Your task to perform on an android device: Add "rayovac triple a" to the cart on walmart.com, then select checkout. Image 0: 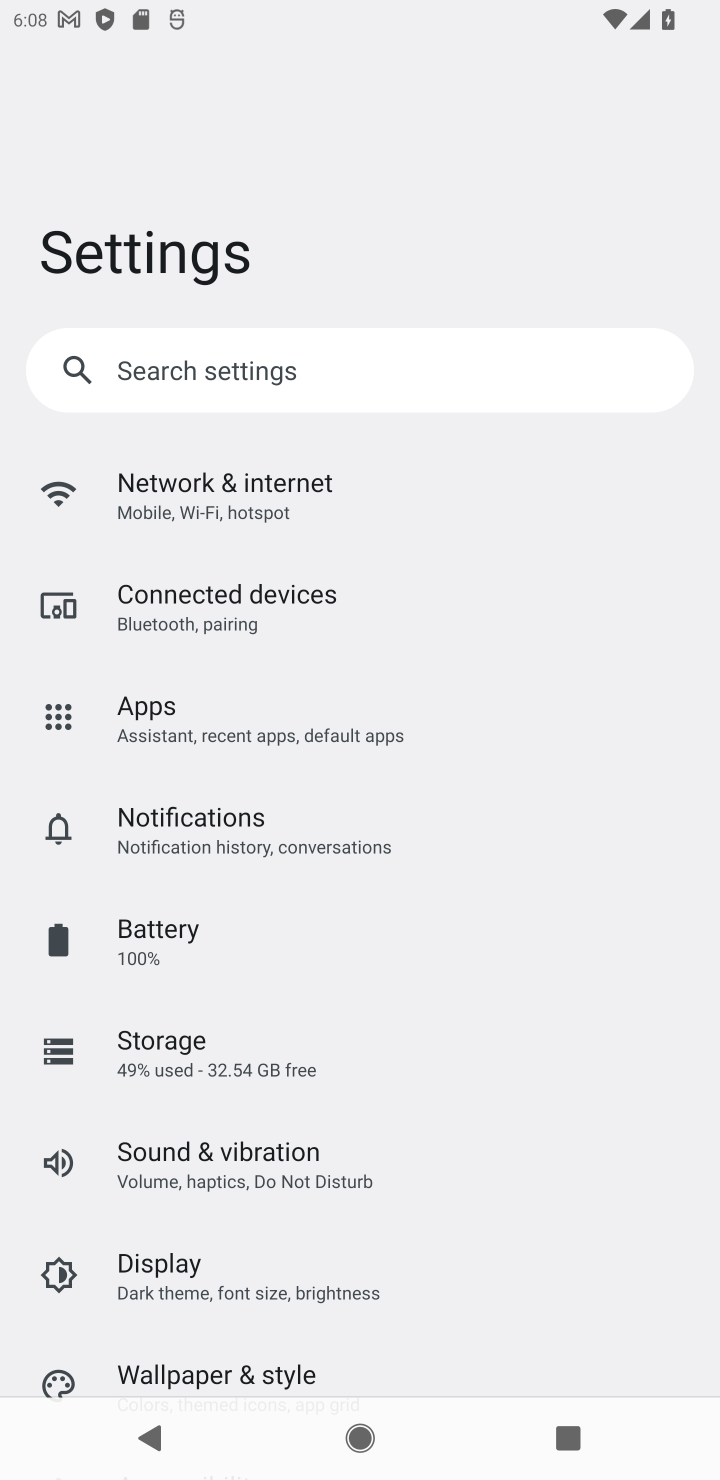
Step 0: press home button
Your task to perform on an android device: Add "rayovac triple a" to the cart on walmart.com, then select checkout. Image 1: 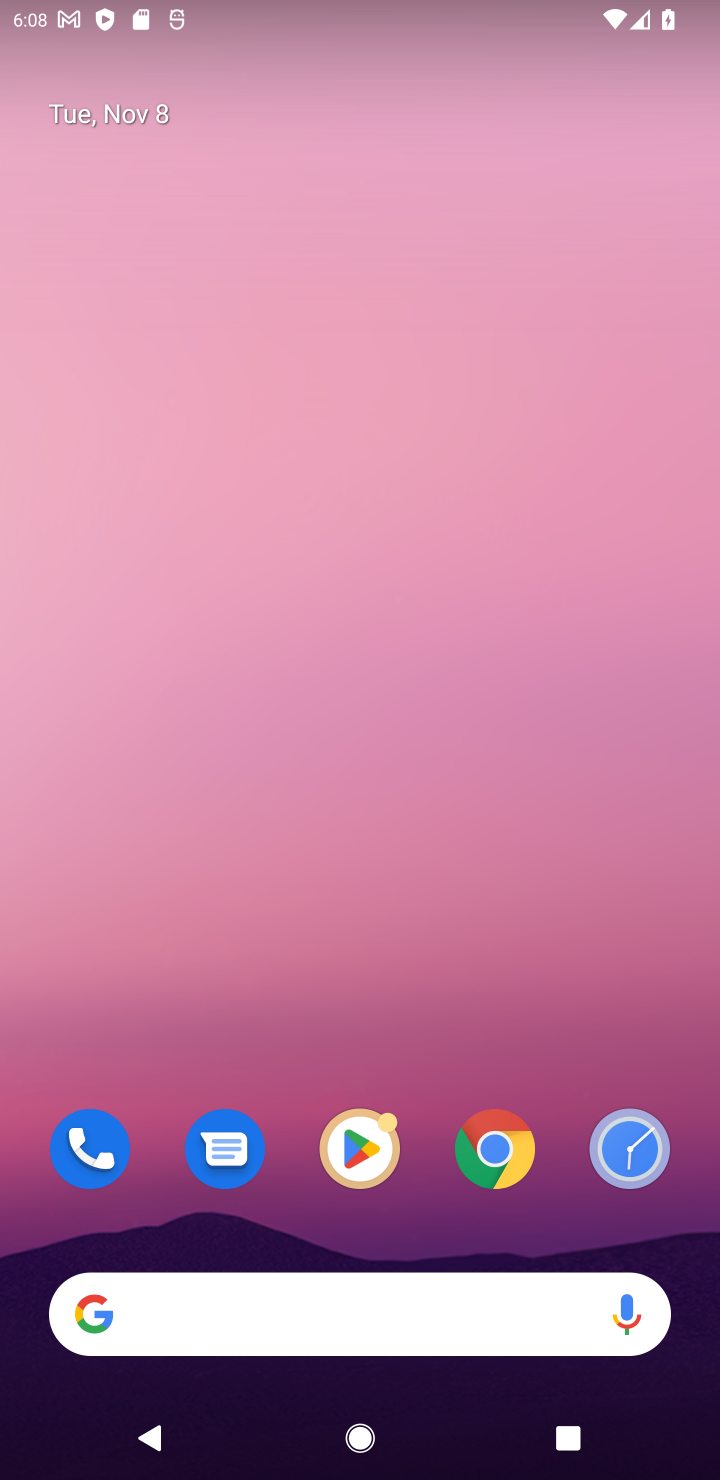
Step 1: click (505, 1155)
Your task to perform on an android device: Add "rayovac triple a" to the cart on walmart.com, then select checkout. Image 2: 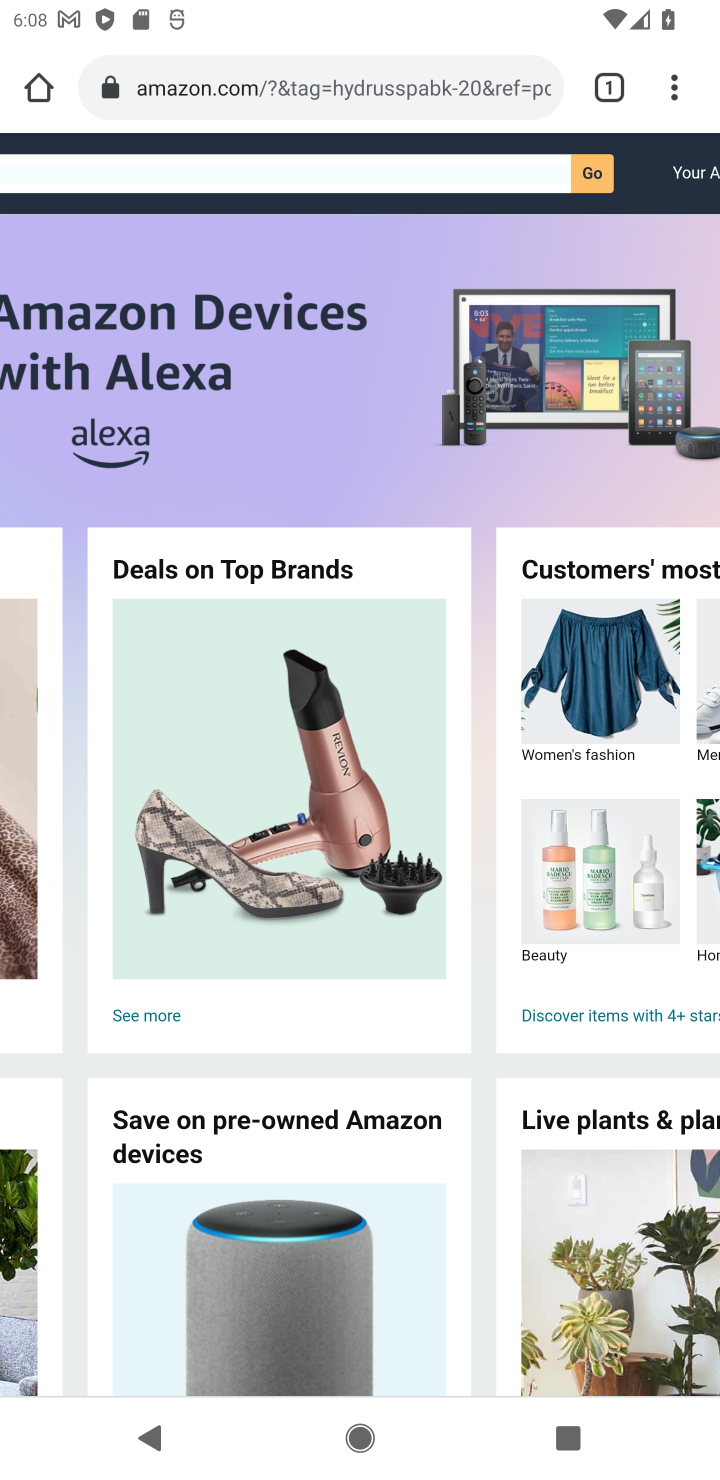
Step 2: click (538, 79)
Your task to perform on an android device: Add "rayovac triple a" to the cart on walmart.com, then select checkout. Image 3: 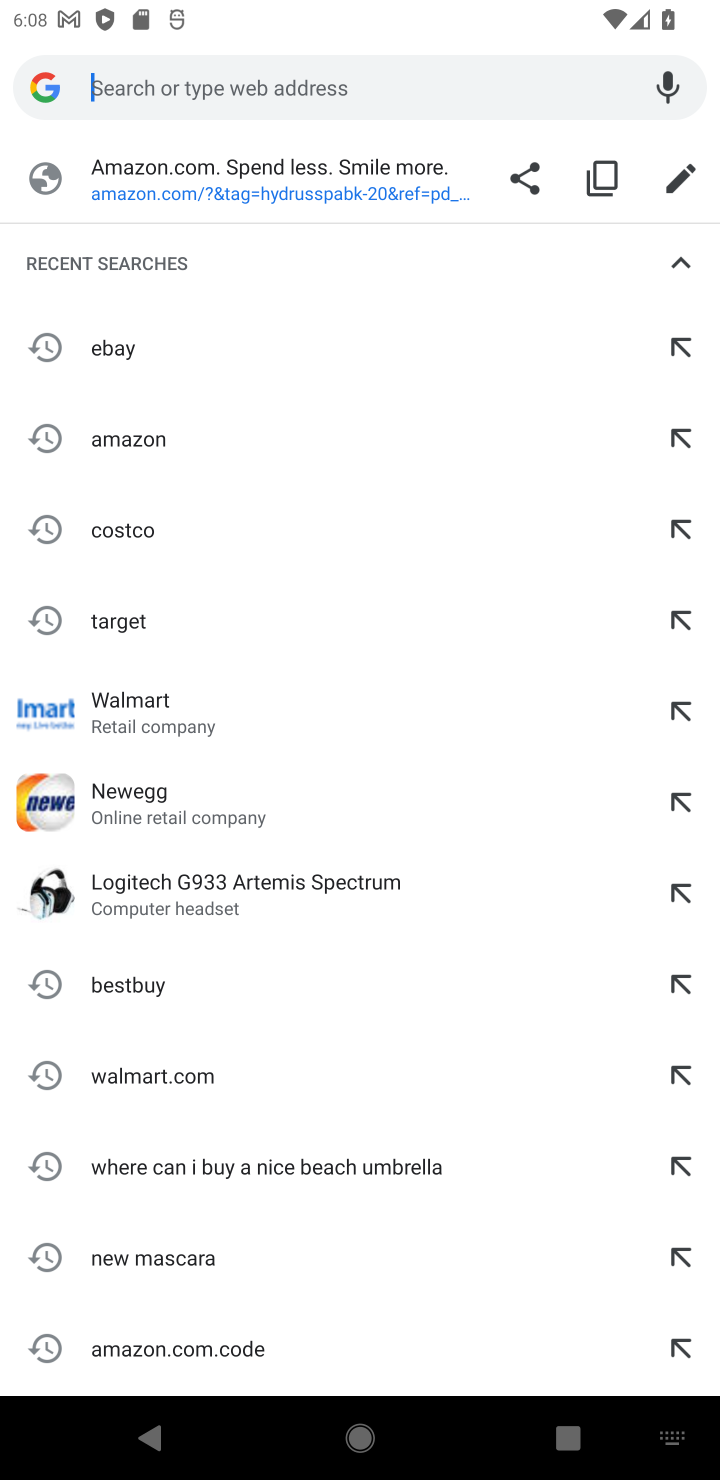
Step 3: type "walmart.com"
Your task to perform on an android device: Add "rayovac triple a" to the cart on walmart.com, then select checkout. Image 4: 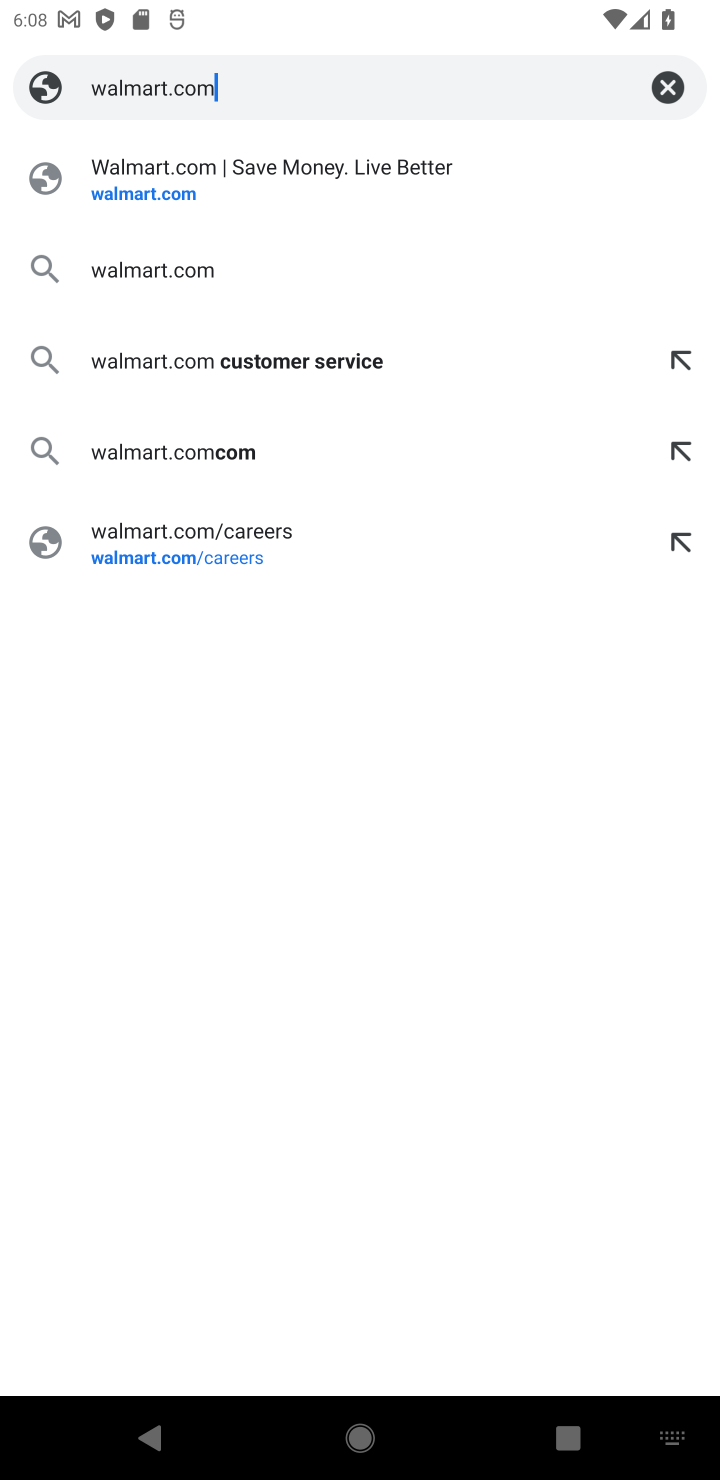
Step 4: click (198, 262)
Your task to perform on an android device: Add "rayovac triple a" to the cart on walmart.com, then select checkout. Image 5: 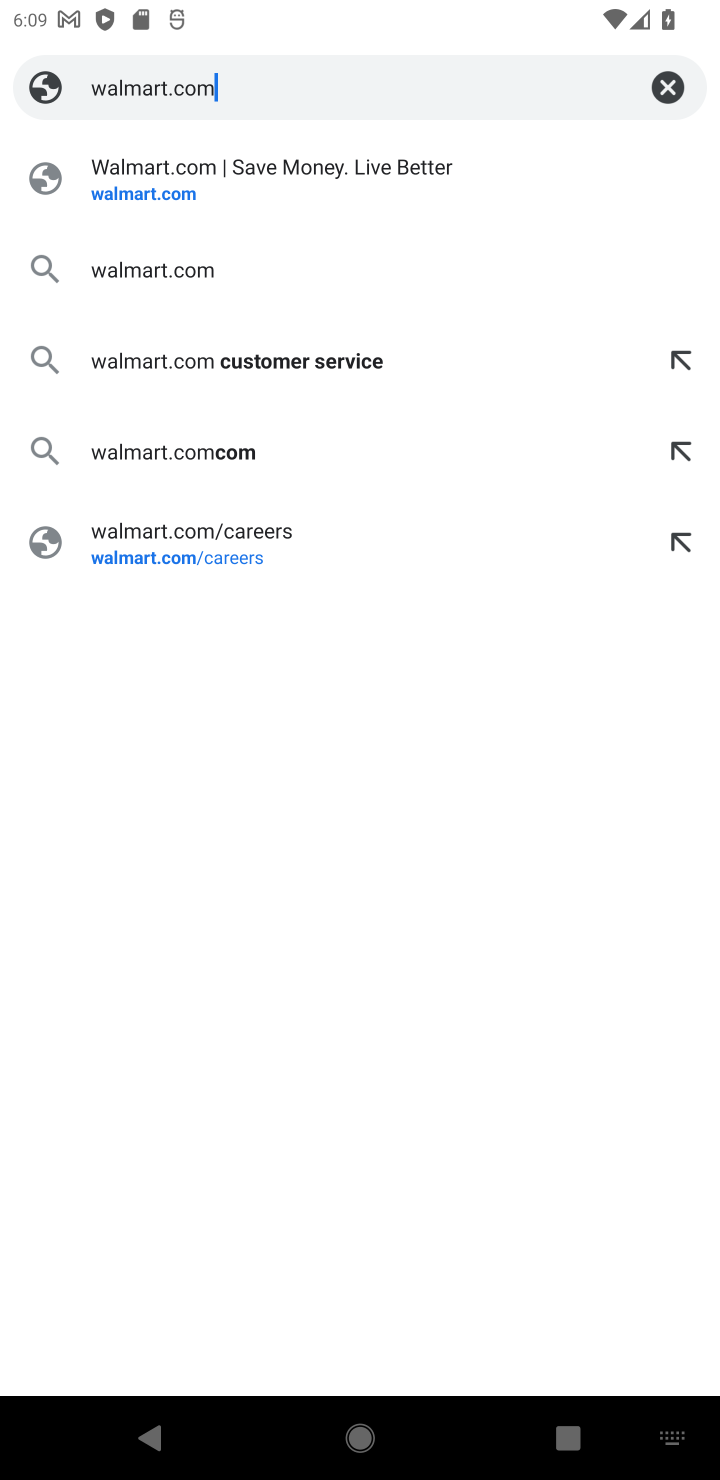
Step 5: click (160, 269)
Your task to perform on an android device: Add "rayovac triple a" to the cart on walmart.com, then select checkout. Image 6: 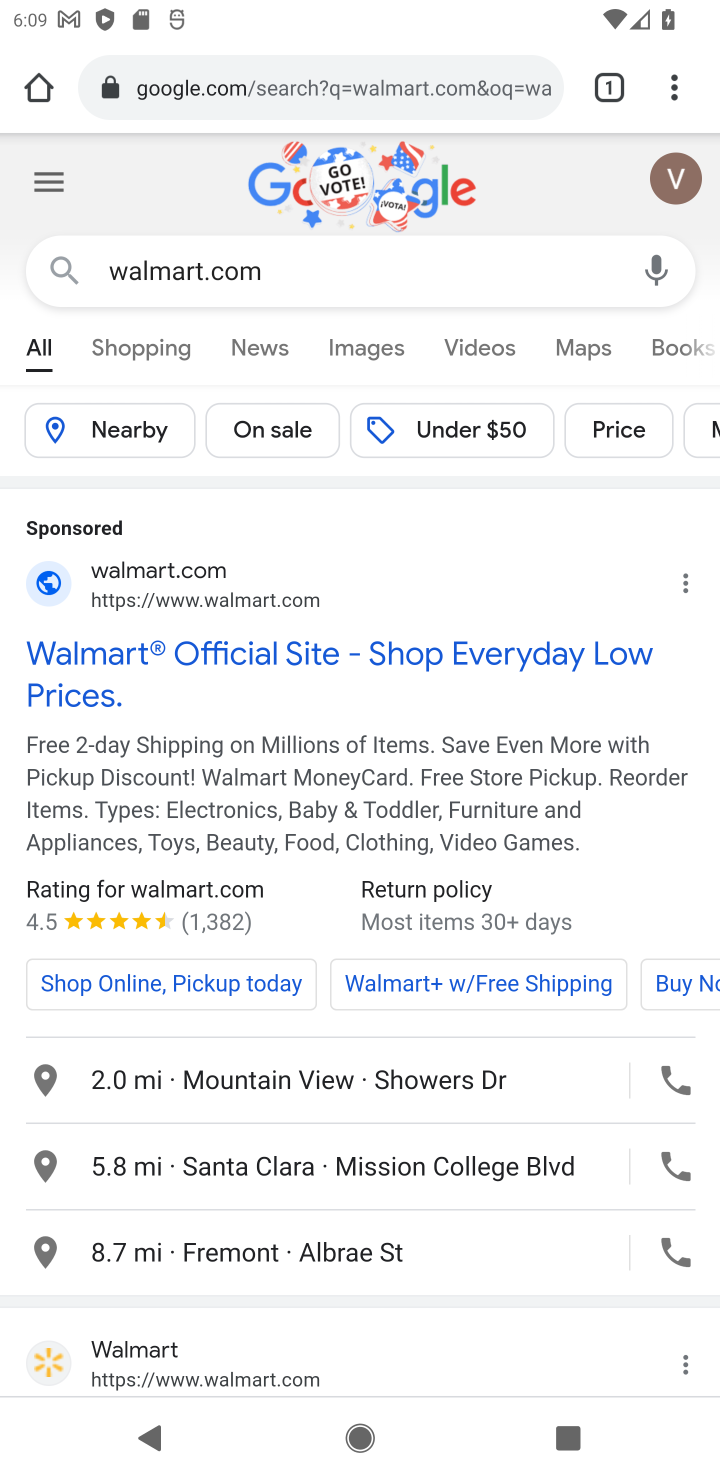
Step 6: click (231, 600)
Your task to perform on an android device: Add "rayovac triple a" to the cart on walmart.com, then select checkout. Image 7: 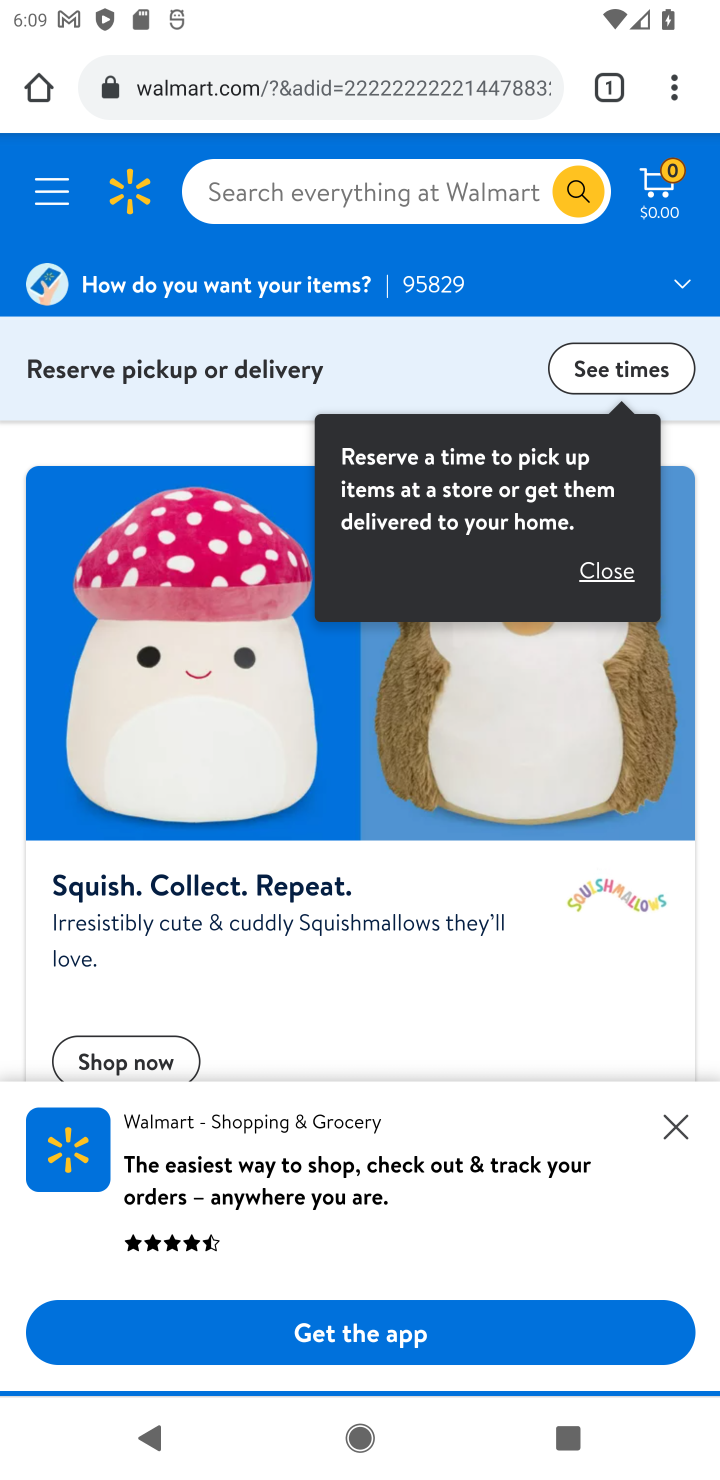
Step 7: click (341, 171)
Your task to perform on an android device: Add "rayovac triple a" to the cart on walmart.com, then select checkout. Image 8: 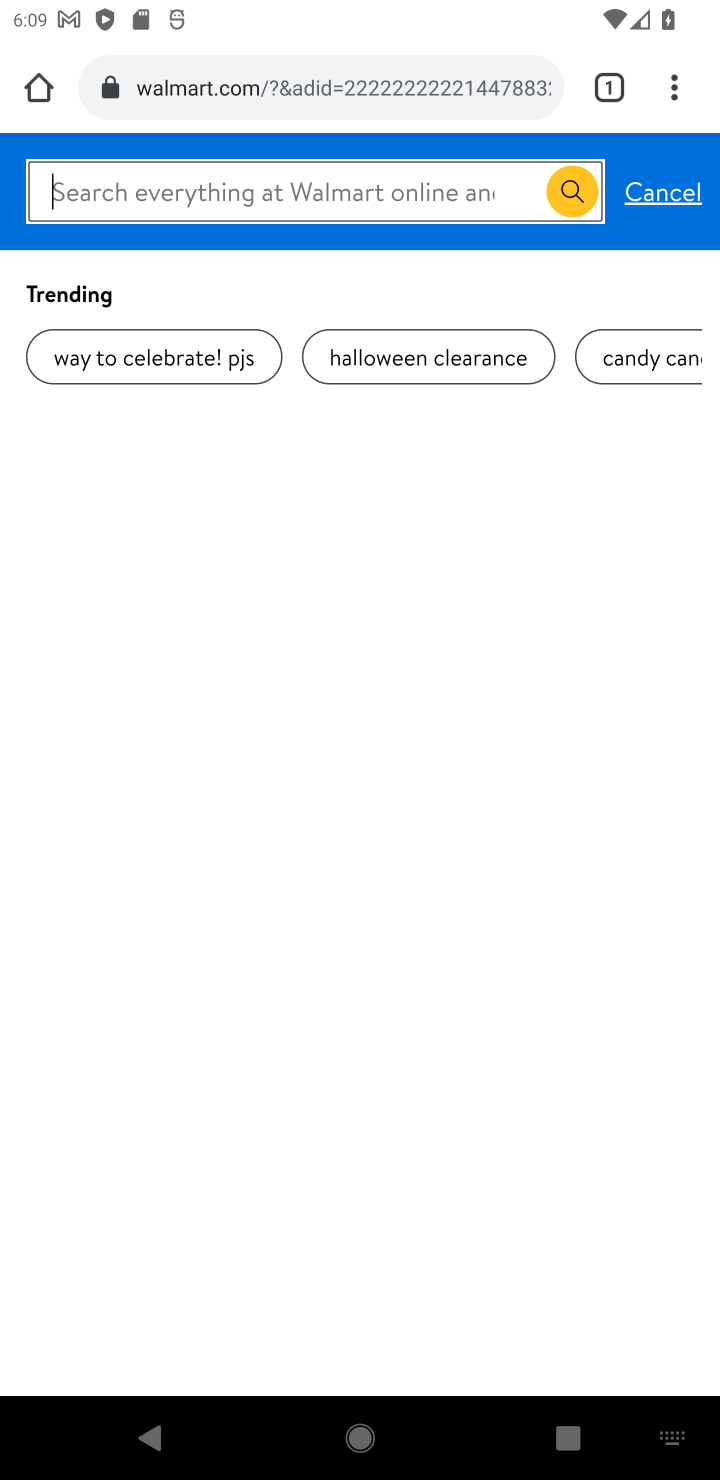
Step 8: type "rayovac triple a"
Your task to perform on an android device: Add "rayovac triple a" to the cart on walmart.com, then select checkout. Image 9: 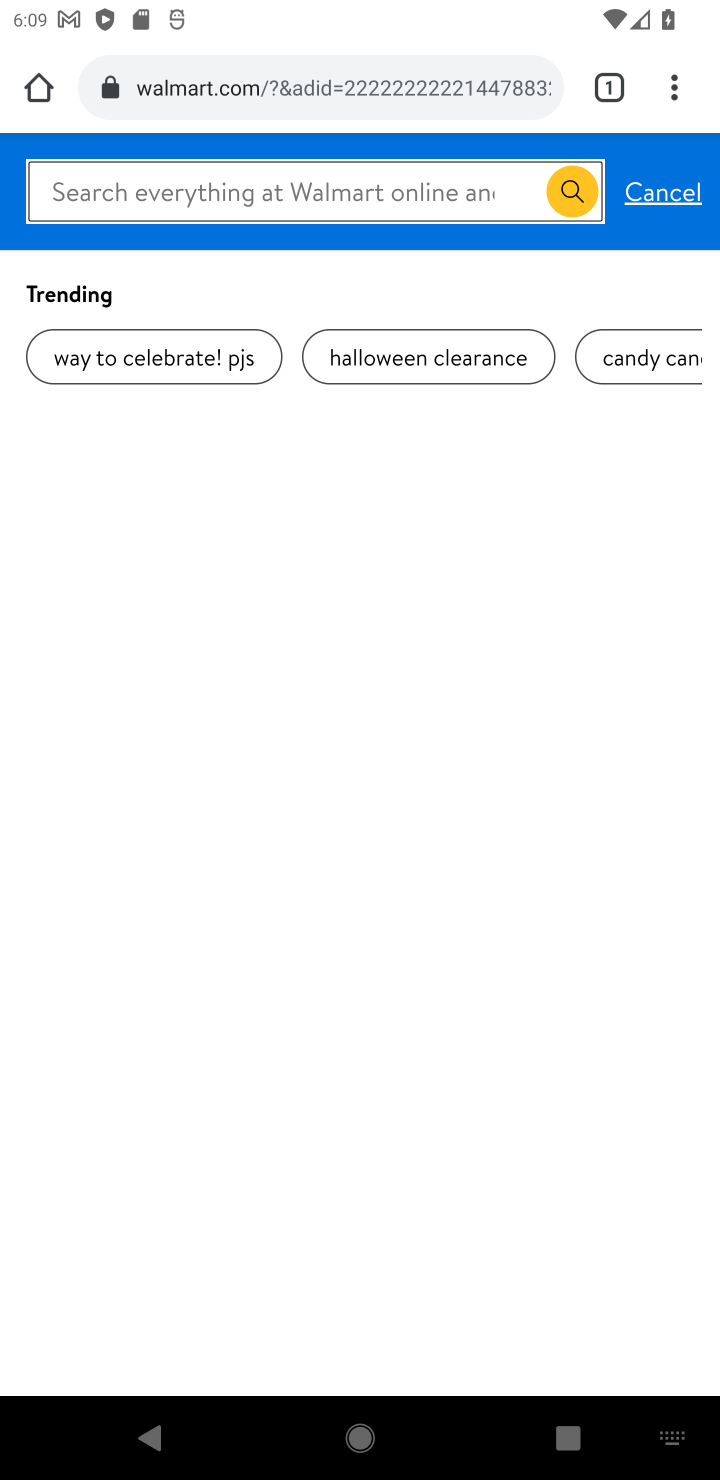
Step 9: press enter
Your task to perform on an android device: Add "rayovac triple a" to the cart on walmart.com, then select checkout. Image 10: 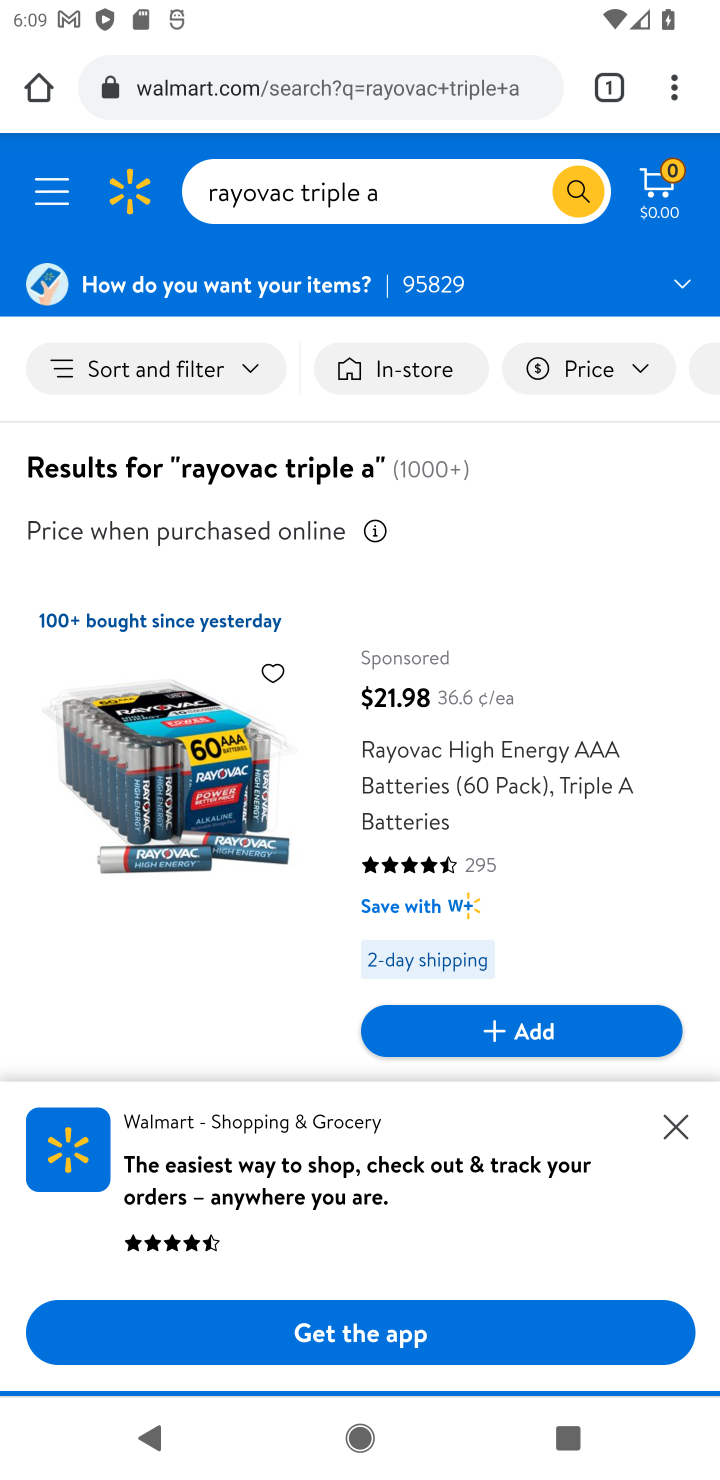
Step 10: click (116, 809)
Your task to perform on an android device: Add "rayovac triple a" to the cart on walmart.com, then select checkout. Image 11: 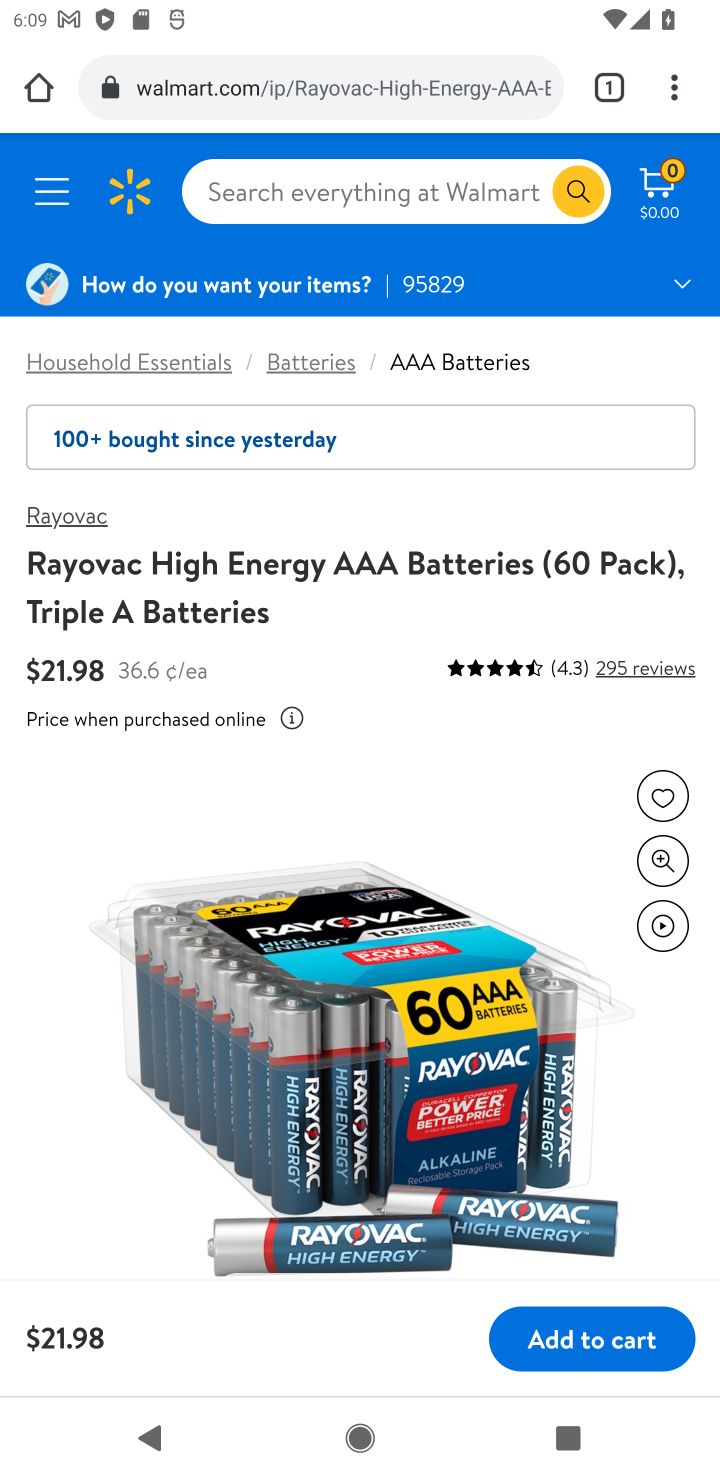
Step 11: click (582, 1355)
Your task to perform on an android device: Add "rayovac triple a" to the cart on walmart.com, then select checkout. Image 12: 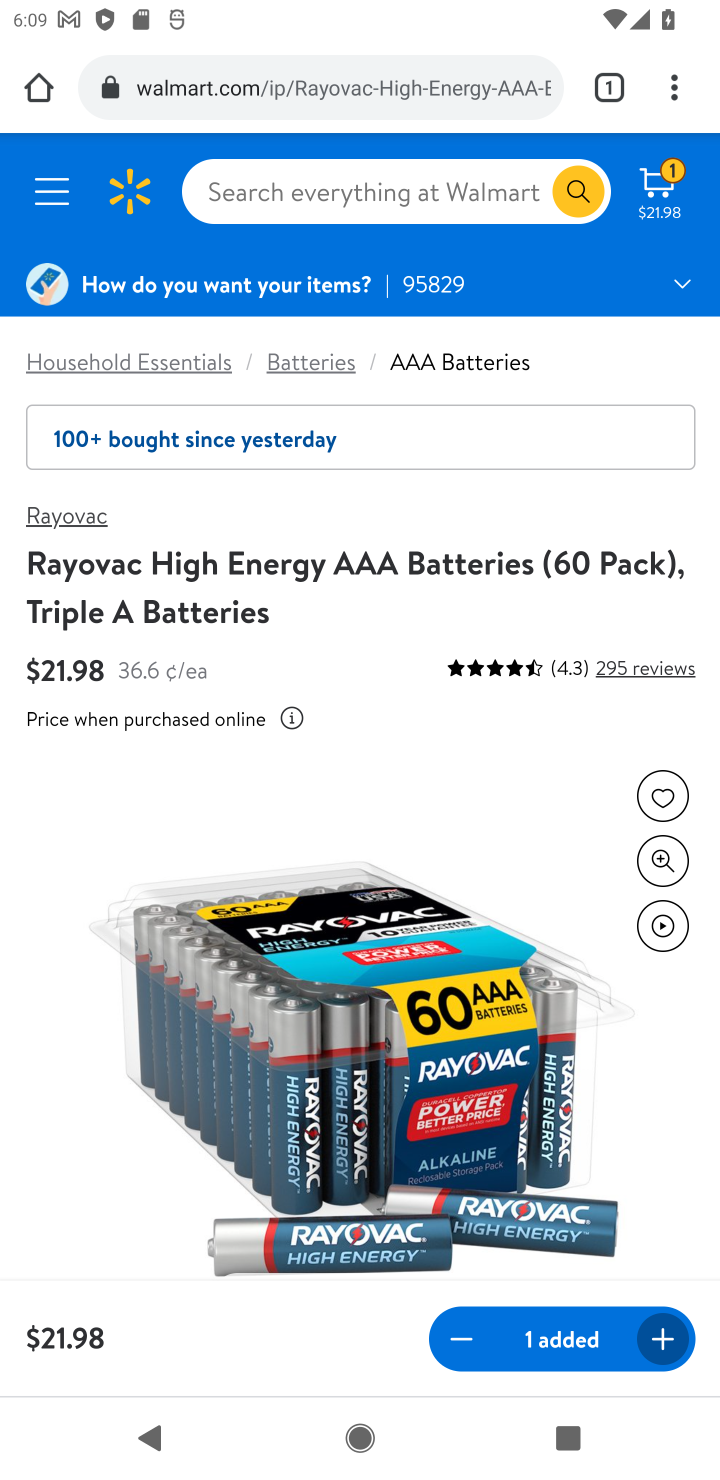
Step 12: click (663, 191)
Your task to perform on an android device: Add "rayovac triple a" to the cart on walmart.com, then select checkout. Image 13: 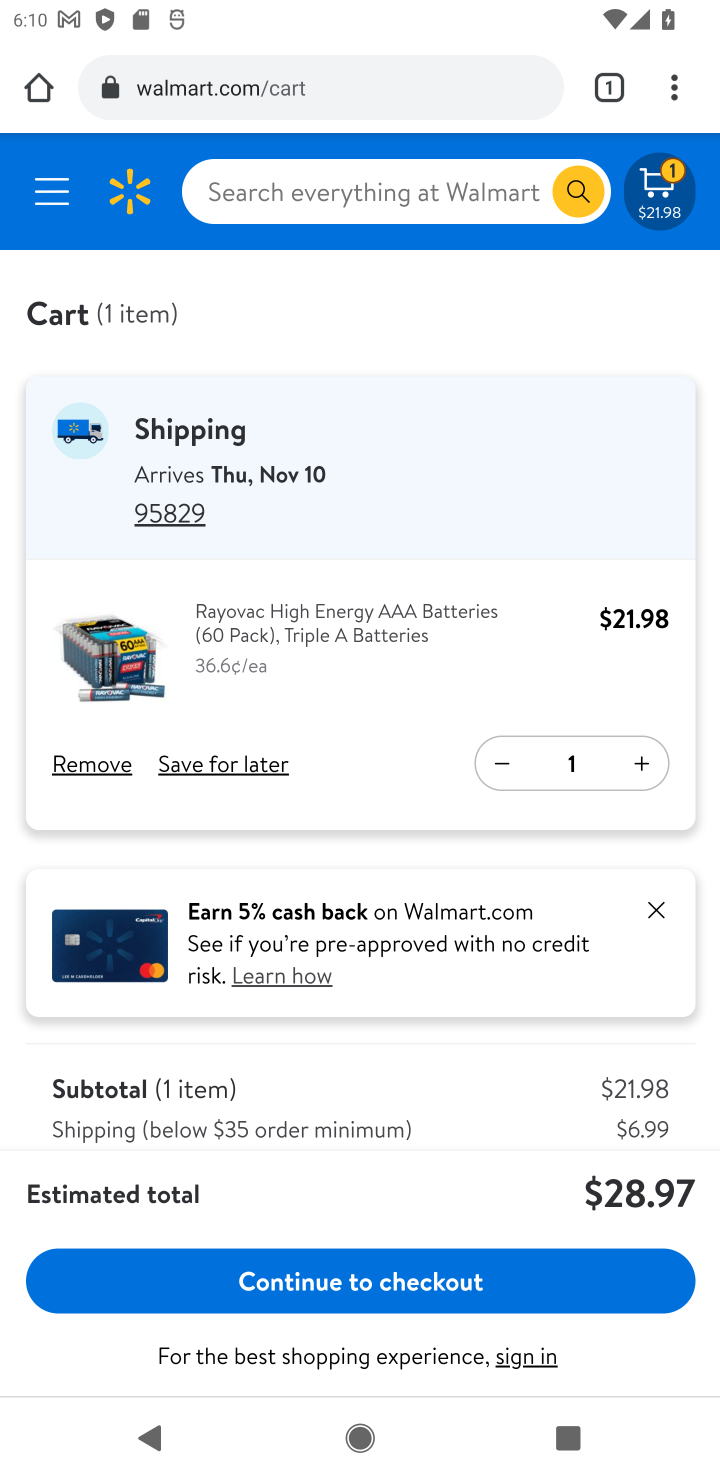
Step 13: click (373, 1277)
Your task to perform on an android device: Add "rayovac triple a" to the cart on walmart.com, then select checkout. Image 14: 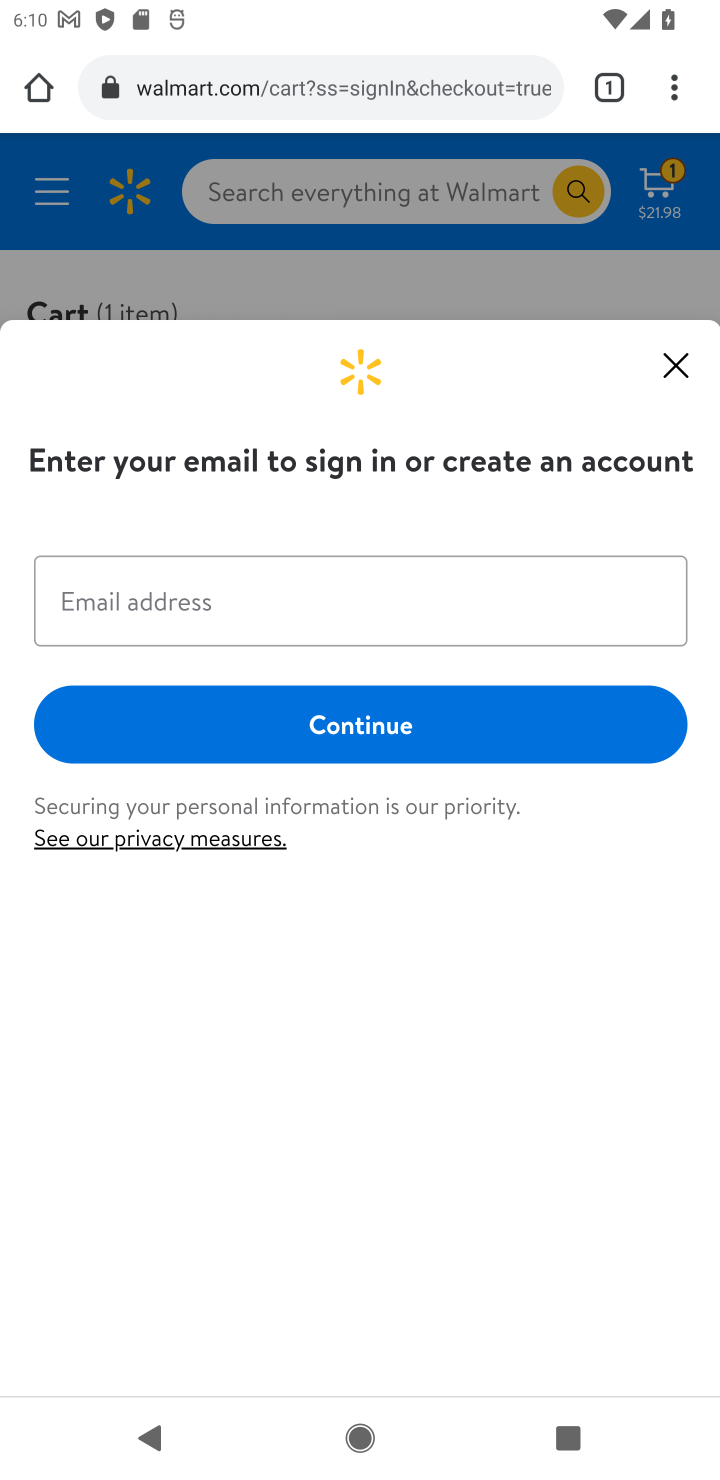
Step 14: task complete